Your task to perform on an android device: Go to Maps Image 0: 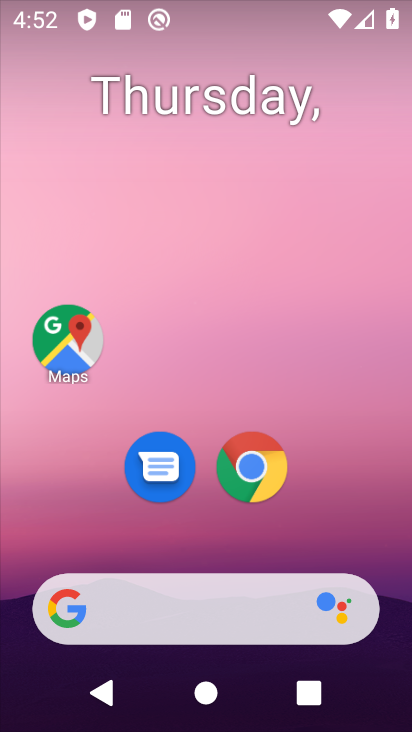
Step 0: click (78, 319)
Your task to perform on an android device: Go to Maps Image 1: 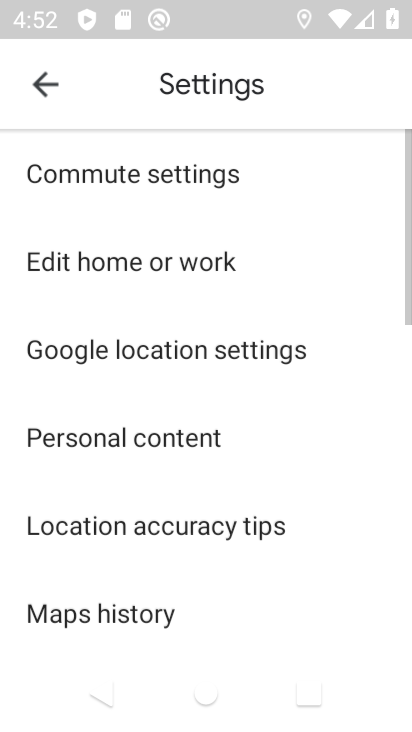
Step 1: task complete